Your task to perform on an android device: Empty the shopping cart on newegg.com. Image 0: 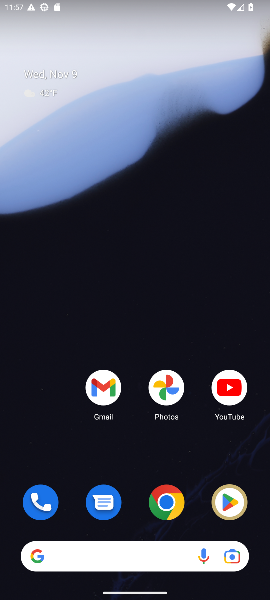
Step 0: drag from (136, 450) to (116, 6)
Your task to perform on an android device: Empty the shopping cart on newegg.com. Image 1: 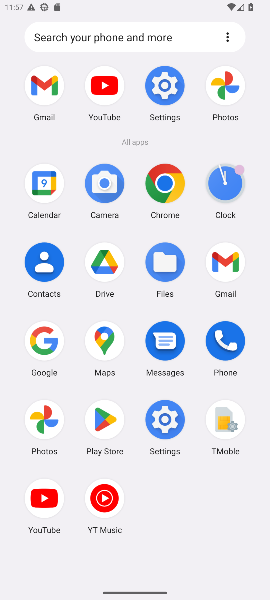
Step 1: click (163, 181)
Your task to perform on an android device: Empty the shopping cart on newegg.com. Image 2: 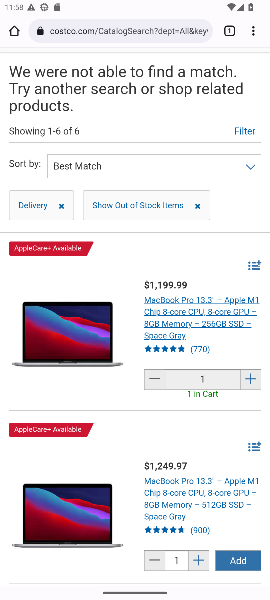
Step 2: click (162, 34)
Your task to perform on an android device: Empty the shopping cart on newegg.com. Image 3: 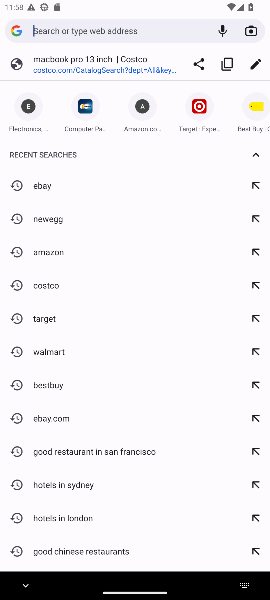
Step 3: type "newegg.com"
Your task to perform on an android device: Empty the shopping cart on newegg.com. Image 4: 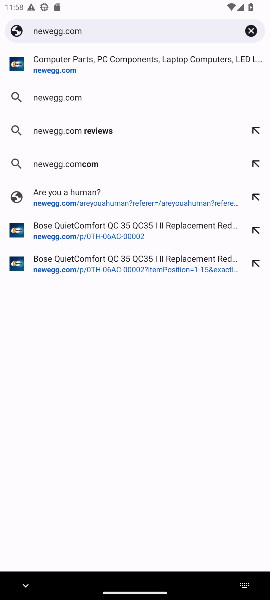
Step 4: press enter
Your task to perform on an android device: Empty the shopping cart on newegg.com. Image 5: 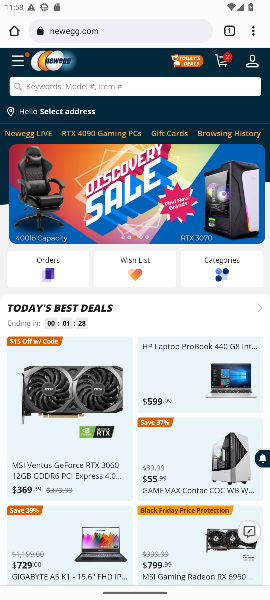
Step 5: click (220, 59)
Your task to perform on an android device: Empty the shopping cart on newegg.com. Image 6: 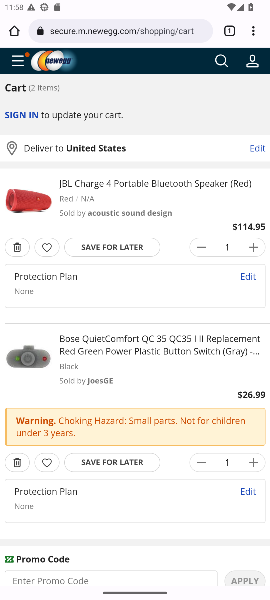
Step 6: click (17, 249)
Your task to perform on an android device: Empty the shopping cart on newegg.com. Image 7: 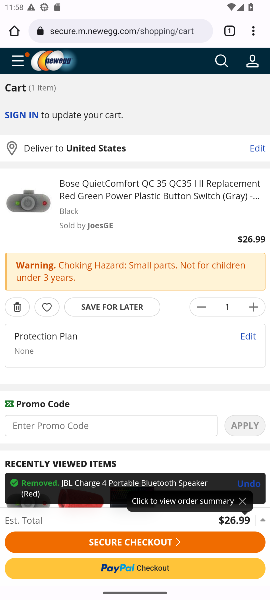
Step 7: click (15, 304)
Your task to perform on an android device: Empty the shopping cart on newegg.com. Image 8: 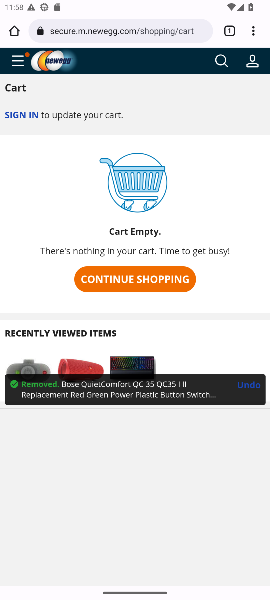
Step 8: task complete